Your task to perform on an android device: Open the phone app and click the voicemail tab. Image 0: 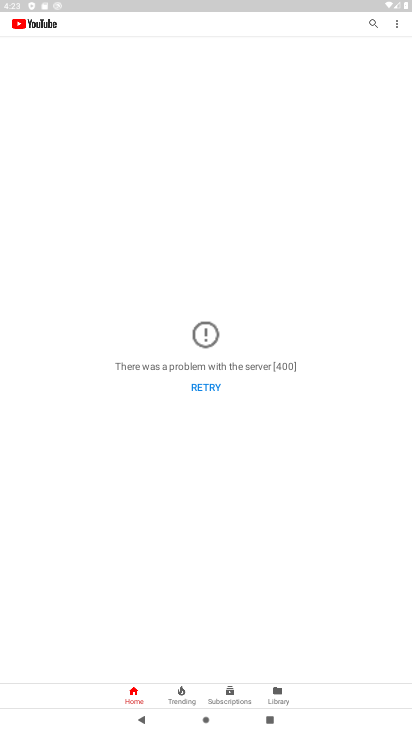
Step 0: press home button
Your task to perform on an android device: Open the phone app and click the voicemail tab. Image 1: 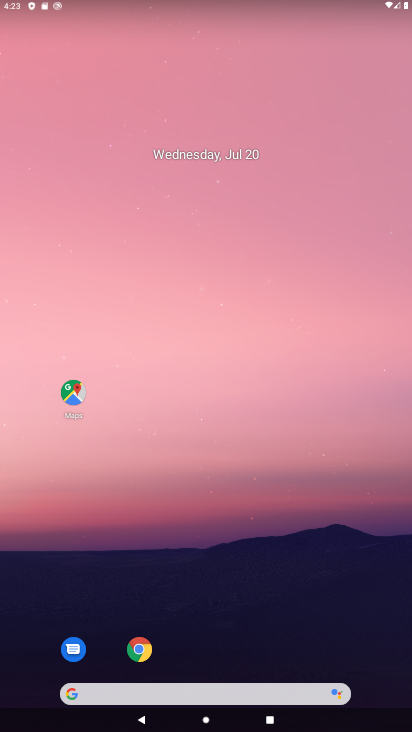
Step 1: drag from (206, 677) to (156, 108)
Your task to perform on an android device: Open the phone app and click the voicemail tab. Image 2: 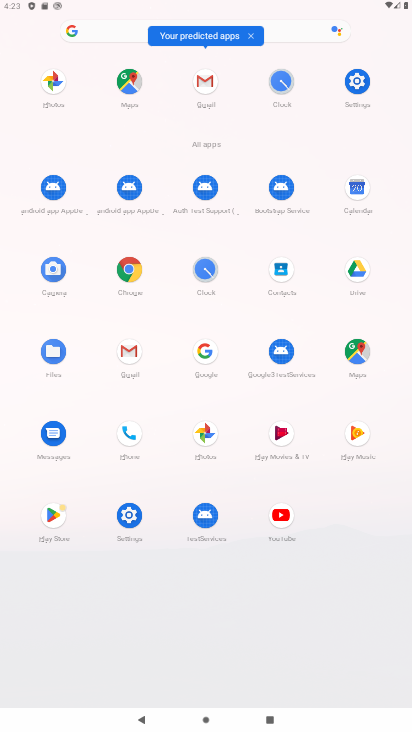
Step 2: click (112, 439)
Your task to perform on an android device: Open the phone app and click the voicemail tab. Image 3: 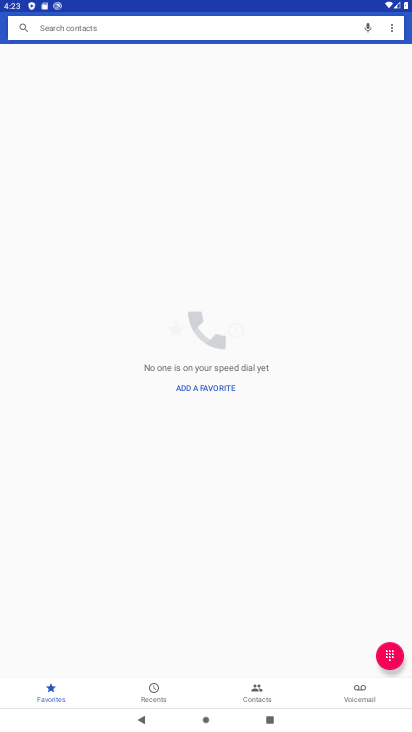
Step 3: click (346, 691)
Your task to perform on an android device: Open the phone app and click the voicemail tab. Image 4: 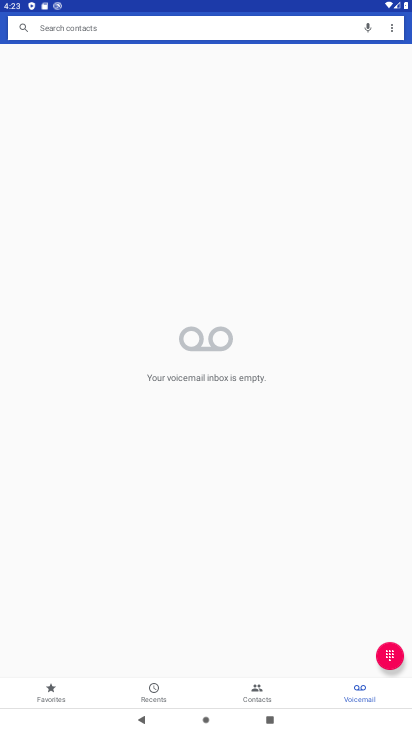
Step 4: task complete